Your task to perform on an android device: Go to location settings Image 0: 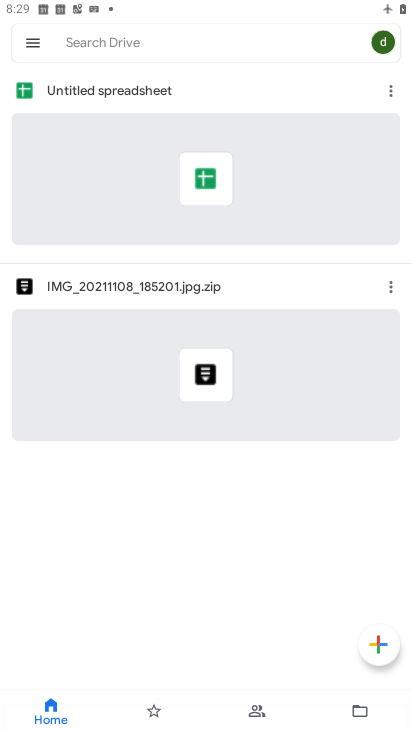
Step 0: drag from (273, 650) to (377, 186)
Your task to perform on an android device: Go to location settings Image 1: 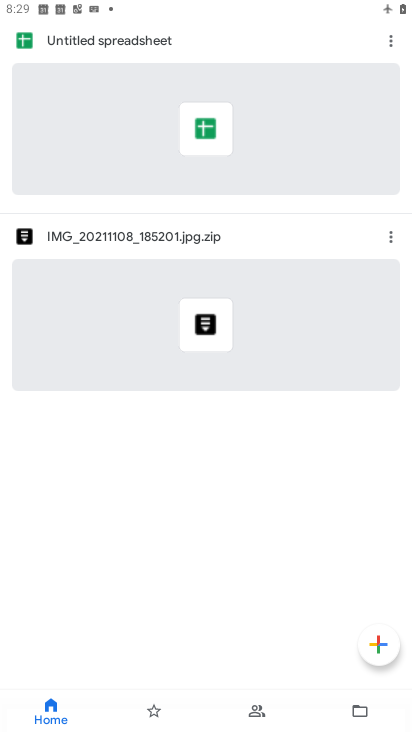
Step 1: press home button
Your task to perform on an android device: Go to location settings Image 2: 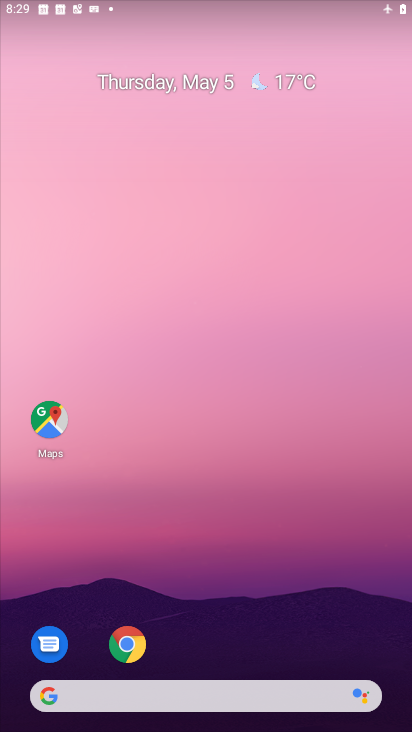
Step 2: drag from (230, 552) to (289, 34)
Your task to perform on an android device: Go to location settings Image 3: 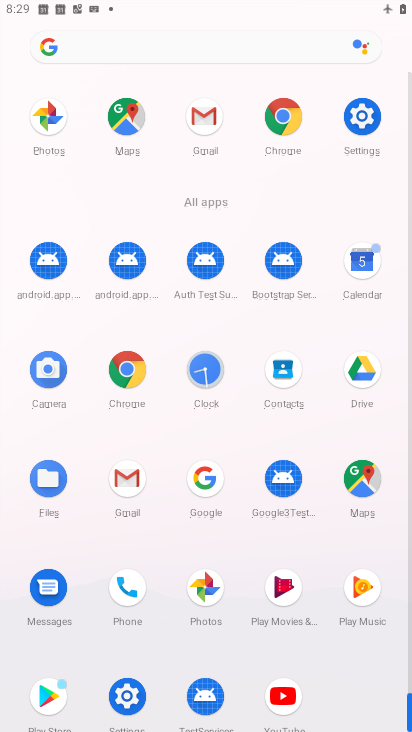
Step 3: click (358, 104)
Your task to perform on an android device: Go to location settings Image 4: 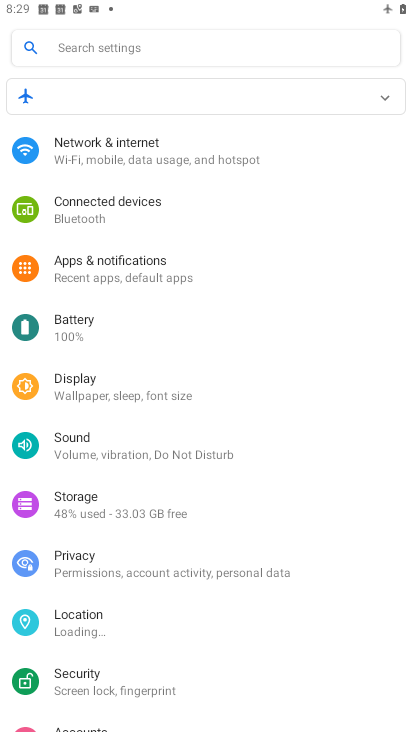
Step 4: drag from (204, 612) to (257, 207)
Your task to perform on an android device: Go to location settings Image 5: 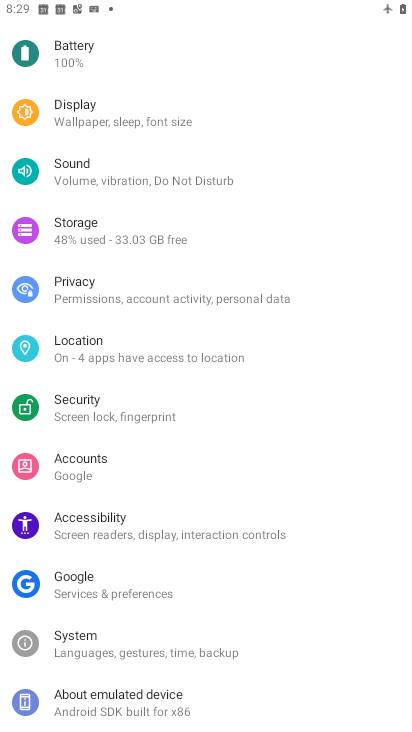
Step 5: click (92, 338)
Your task to perform on an android device: Go to location settings Image 6: 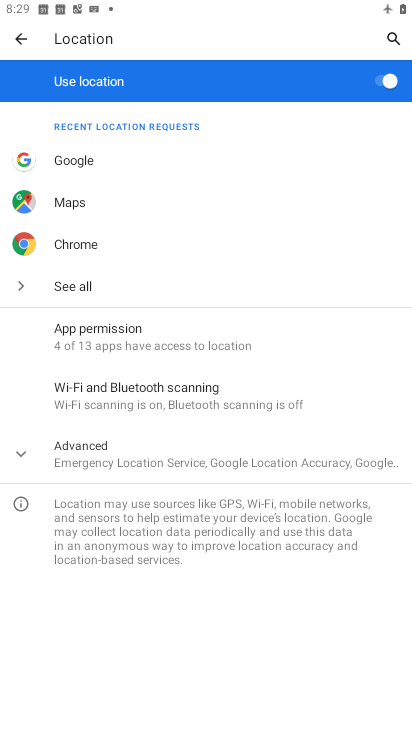
Step 6: click (106, 464)
Your task to perform on an android device: Go to location settings Image 7: 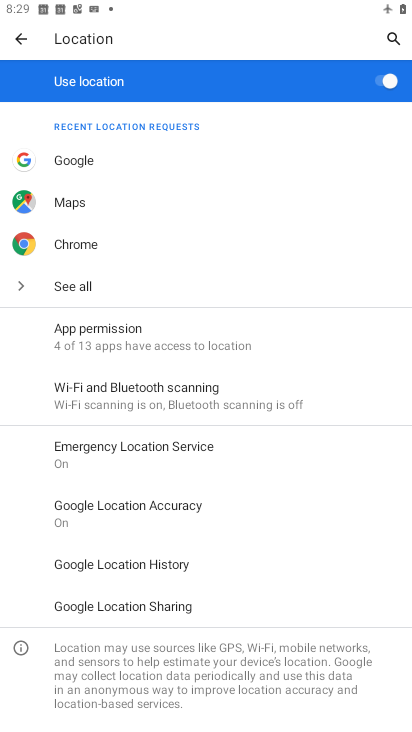
Step 7: task complete